Your task to perform on an android device: turn off notifications in google photos Image 0: 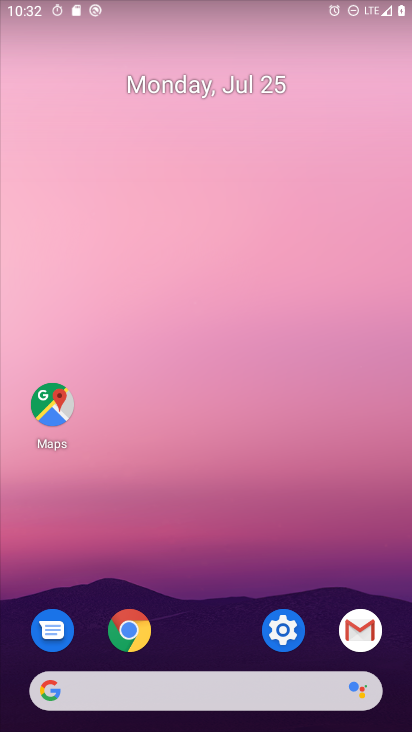
Step 0: drag from (244, 690) to (196, 77)
Your task to perform on an android device: turn off notifications in google photos Image 1: 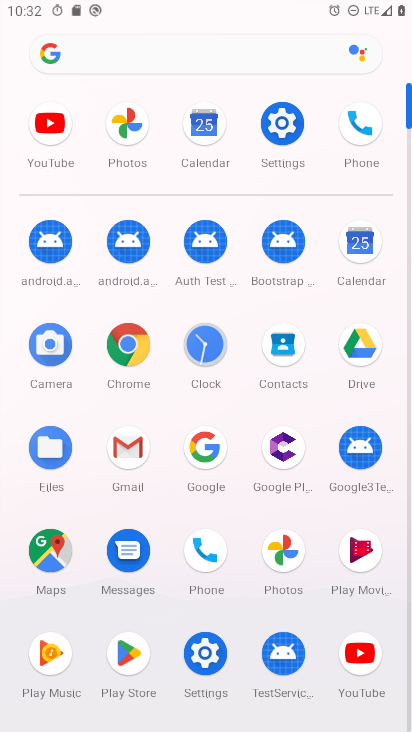
Step 1: click (284, 569)
Your task to perform on an android device: turn off notifications in google photos Image 2: 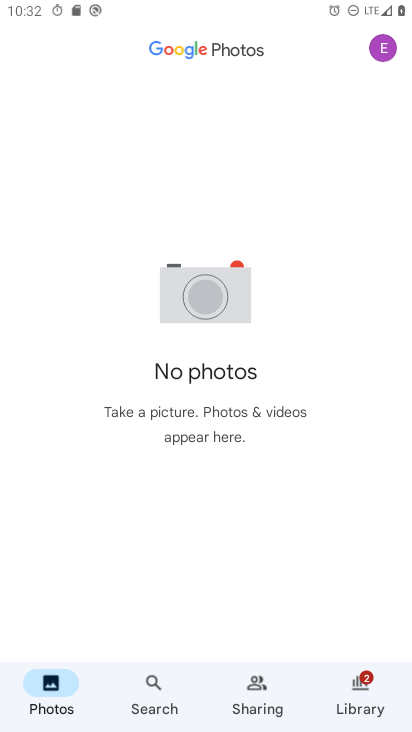
Step 2: click (386, 52)
Your task to perform on an android device: turn off notifications in google photos Image 3: 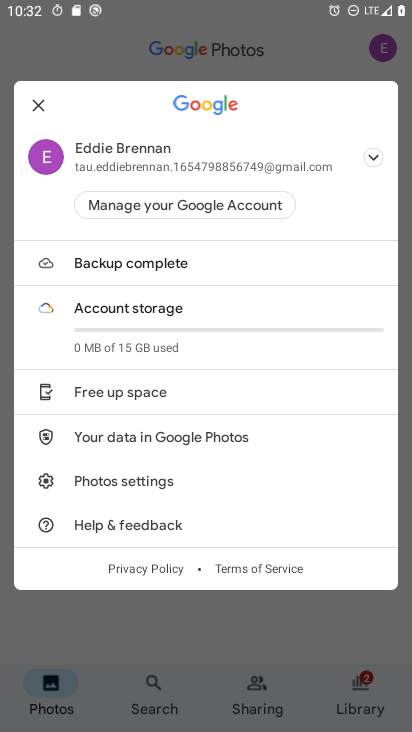
Step 3: click (139, 486)
Your task to perform on an android device: turn off notifications in google photos Image 4: 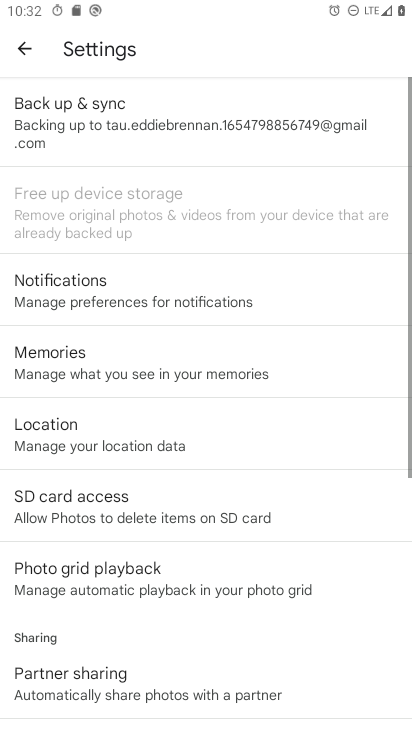
Step 4: click (106, 300)
Your task to perform on an android device: turn off notifications in google photos Image 5: 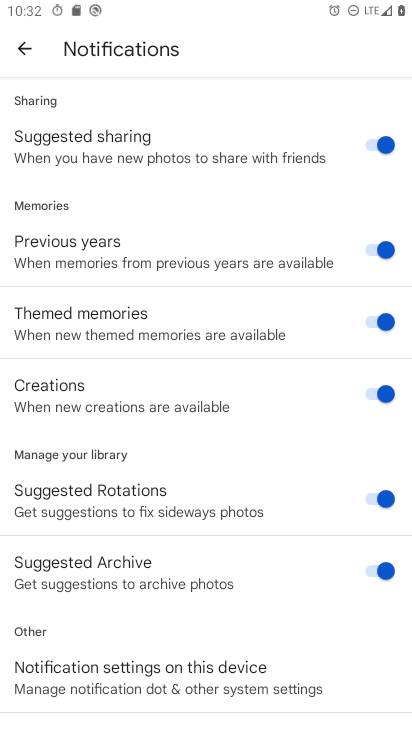
Step 5: click (150, 673)
Your task to perform on an android device: turn off notifications in google photos Image 6: 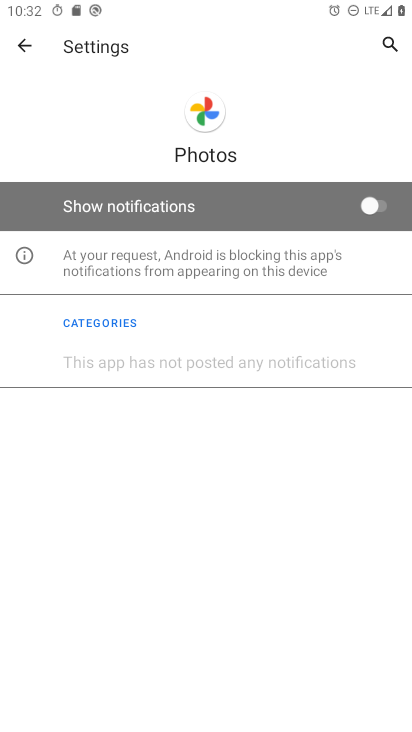
Step 6: click (357, 206)
Your task to perform on an android device: turn off notifications in google photos Image 7: 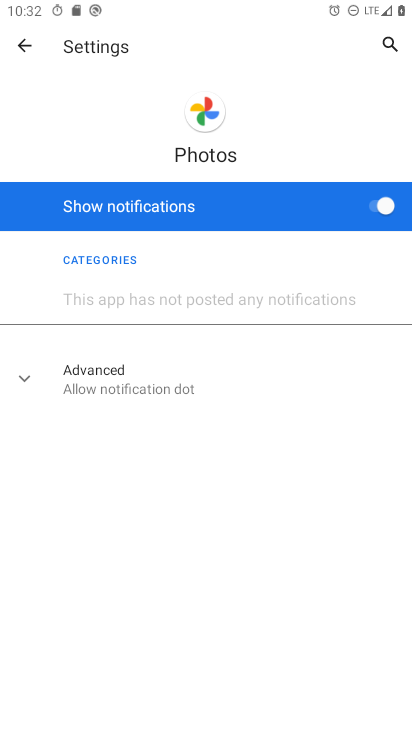
Step 7: click (357, 206)
Your task to perform on an android device: turn off notifications in google photos Image 8: 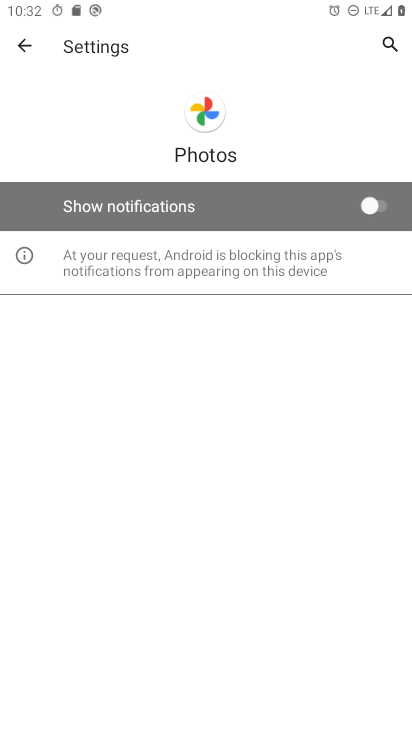
Step 8: task complete